Your task to perform on an android device: Open settings Image 0: 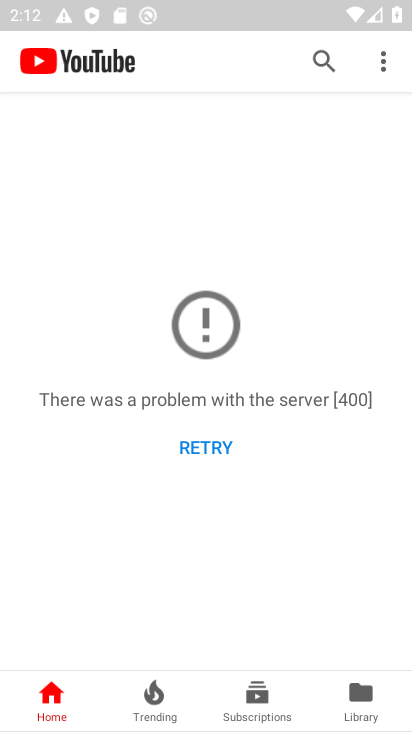
Step 0: press home button
Your task to perform on an android device: Open settings Image 1: 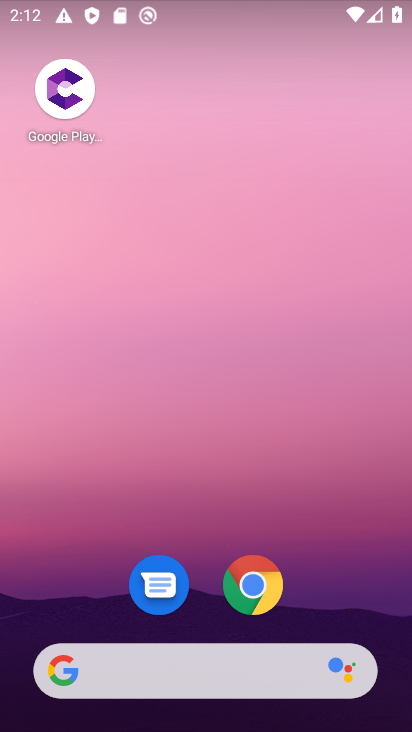
Step 1: drag from (207, 512) to (195, 1)
Your task to perform on an android device: Open settings Image 2: 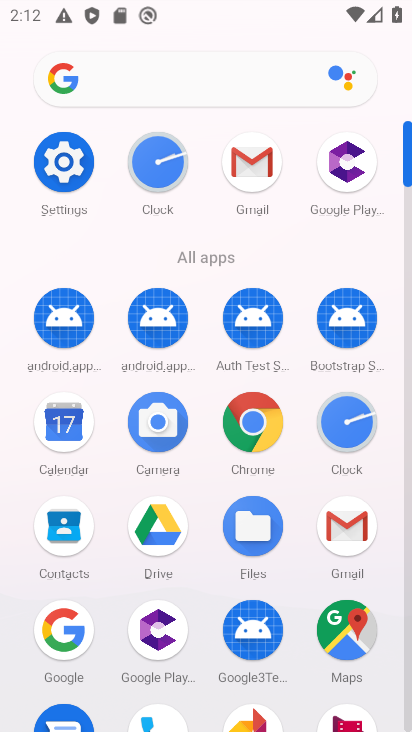
Step 2: click (58, 155)
Your task to perform on an android device: Open settings Image 3: 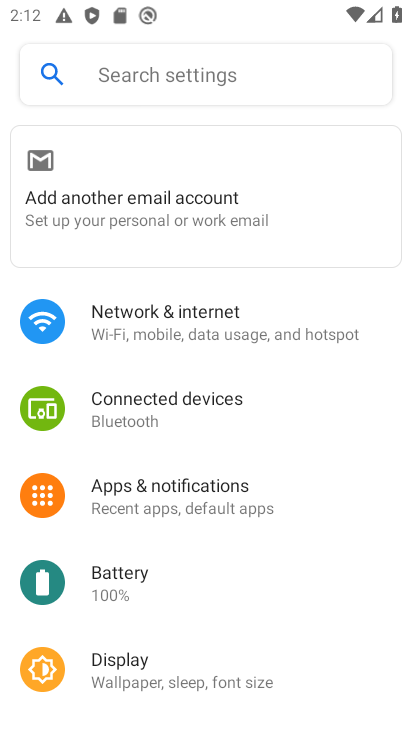
Step 3: task complete